Your task to perform on an android device: Go to Amazon Image 0: 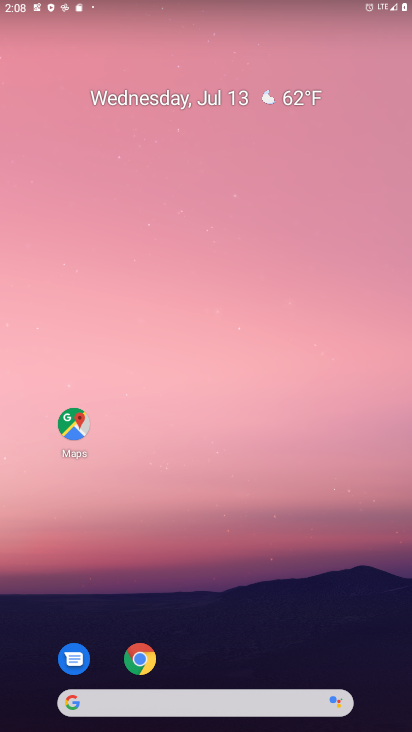
Step 0: click (143, 658)
Your task to perform on an android device: Go to Amazon Image 1: 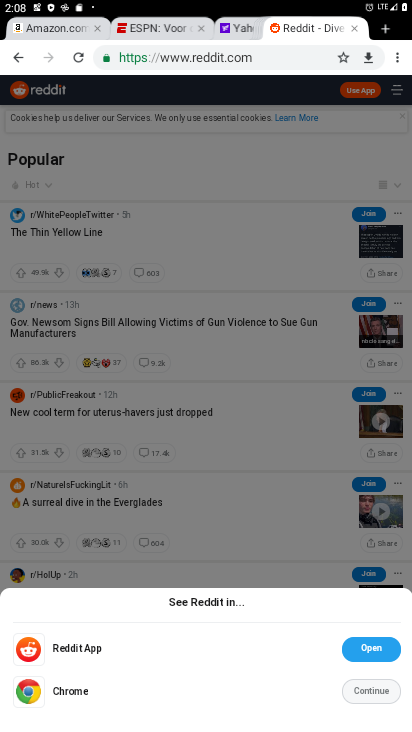
Step 1: click (397, 59)
Your task to perform on an android device: Go to Amazon Image 2: 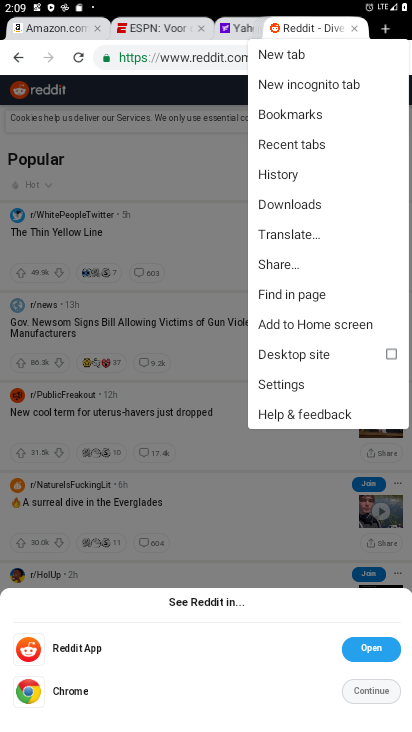
Step 2: click (282, 55)
Your task to perform on an android device: Go to Amazon Image 3: 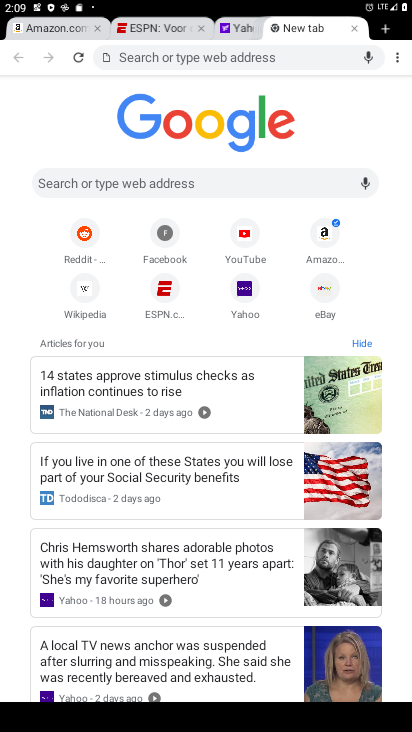
Step 3: click (324, 237)
Your task to perform on an android device: Go to Amazon Image 4: 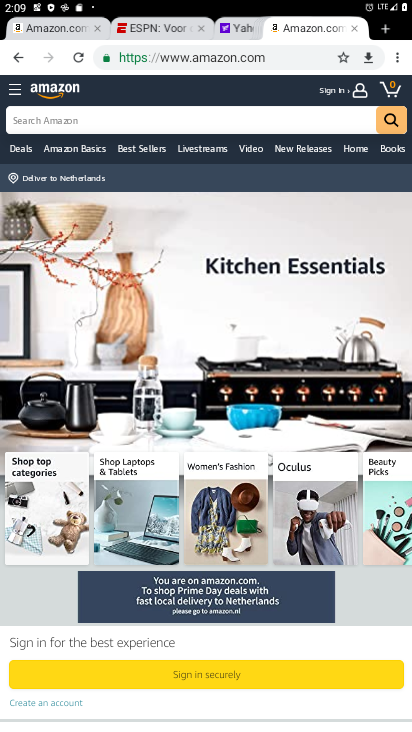
Step 4: task complete